Your task to perform on an android device: Go to Yahoo.com Image 0: 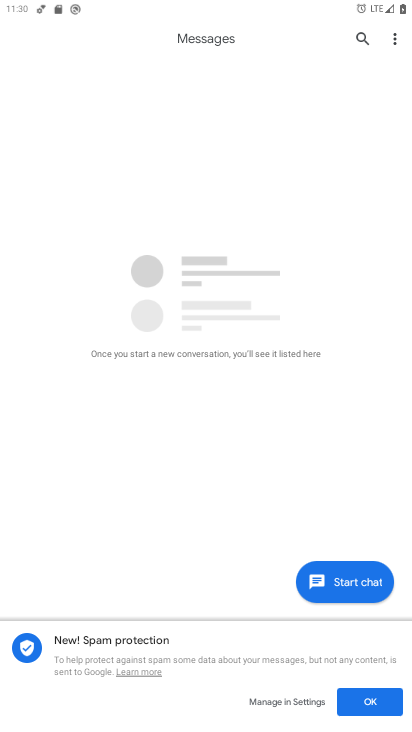
Step 0: drag from (213, 8) to (242, 581)
Your task to perform on an android device: Go to Yahoo.com Image 1: 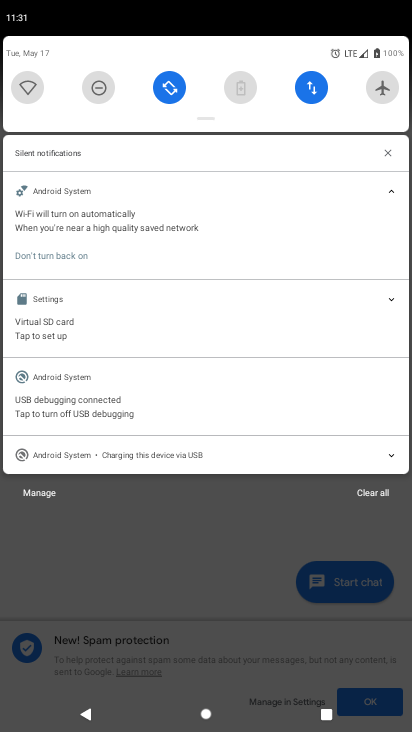
Step 1: task complete